Your task to perform on an android device: Open Chrome and go to the settings page Image 0: 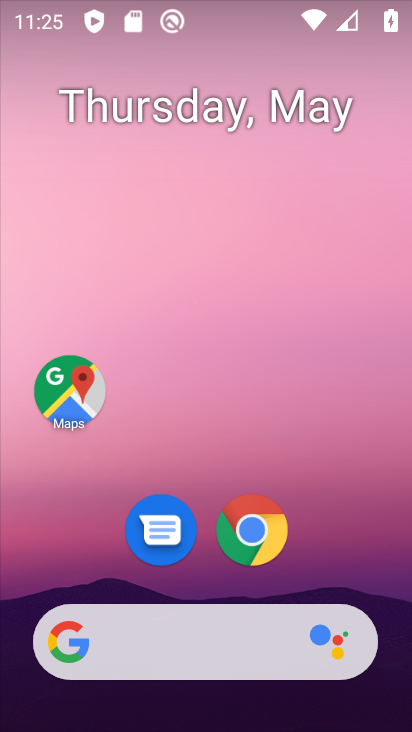
Step 0: click (251, 535)
Your task to perform on an android device: Open Chrome and go to the settings page Image 1: 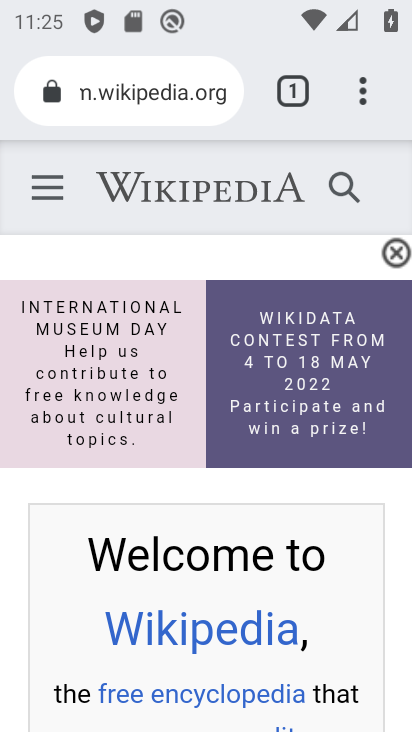
Step 1: click (361, 78)
Your task to perform on an android device: Open Chrome and go to the settings page Image 2: 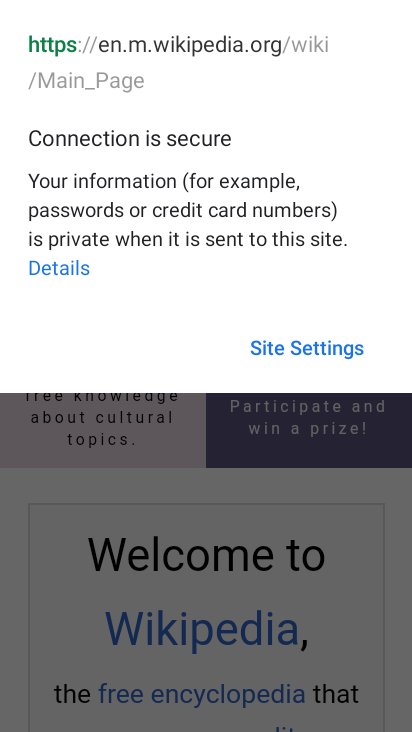
Step 2: click (166, 510)
Your task to perform on an android device: Open Chrome and go to the settings page Image 3: 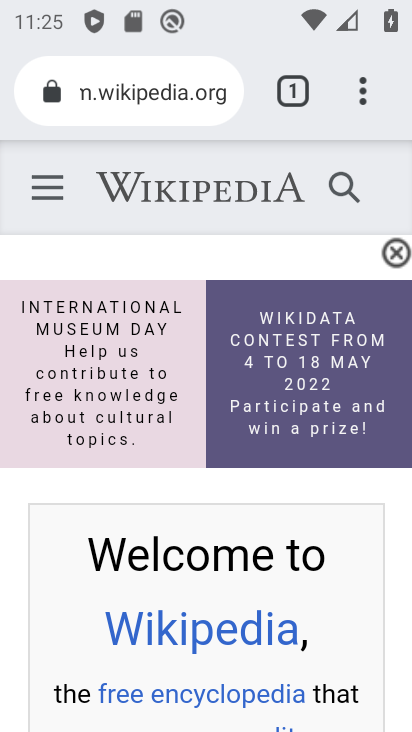
Step 3: click (360, 93)
Your task to perform on an android device: Open Chrome and go to the settings page Image 4: 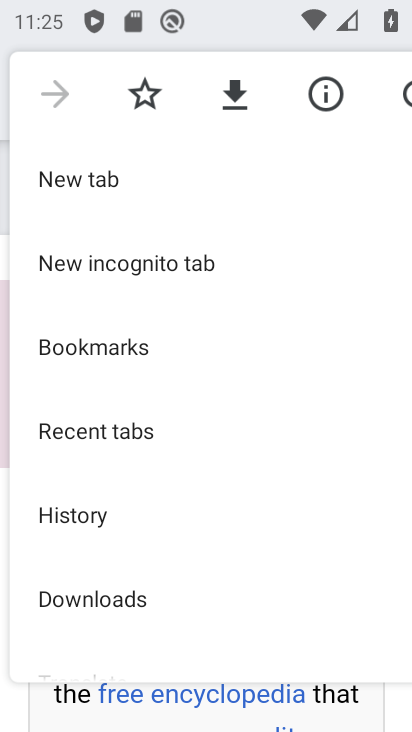
Step 4: drag from (279, 605) to (318, 224)
Your task to perform on an android device: Open Chrome and go to the settings page Image 5: 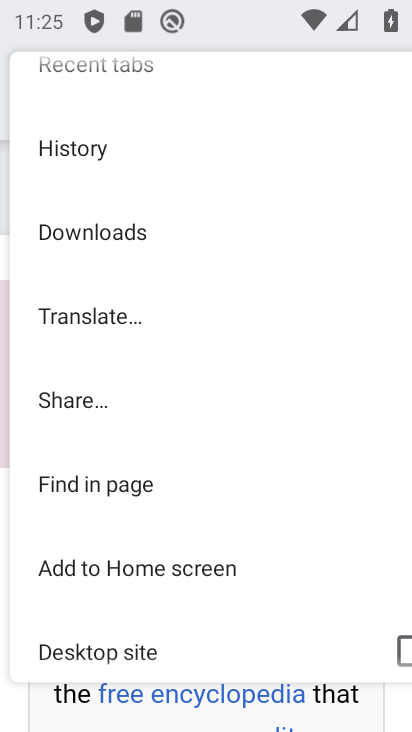
Step 5: drag from (161, 567) to (252, 320)
Your task to perform on an android device: Open Chrome and go to the settings page Image 6: 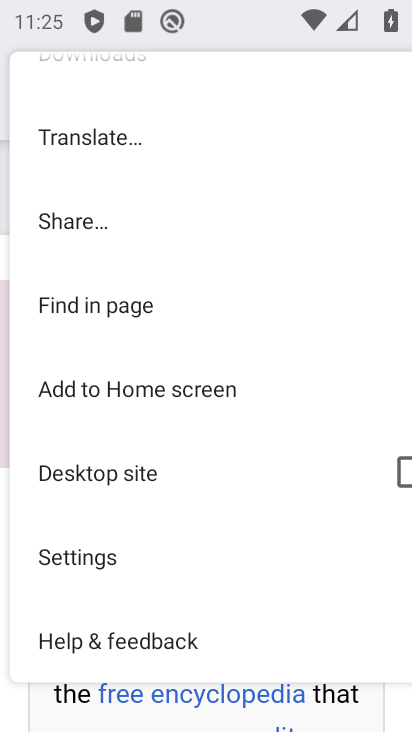
Step 6: click (121, 542)
Your task to perform on an android device: Open Chrome and go to the settings page Image 7: 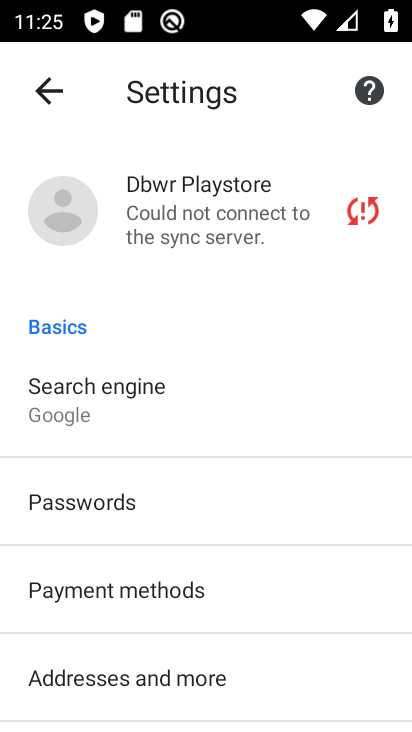
Step 7: task complete